Your task to perform on an android device: refresh tabs in the chrome app Image 0: 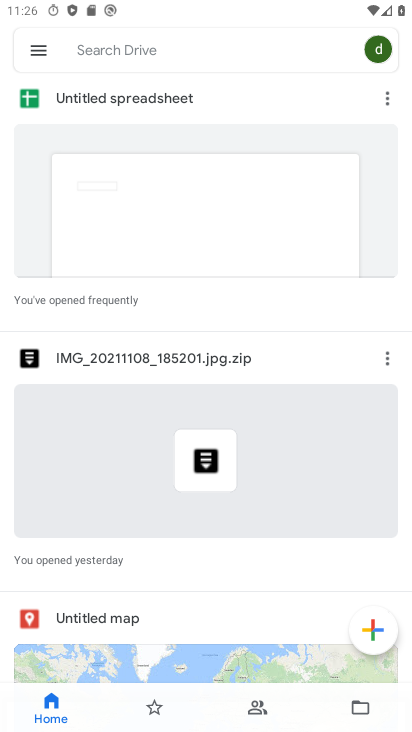
Step 0: press home button
Your task to perform on an android device: refresh tabs in the chrome app Image 1: 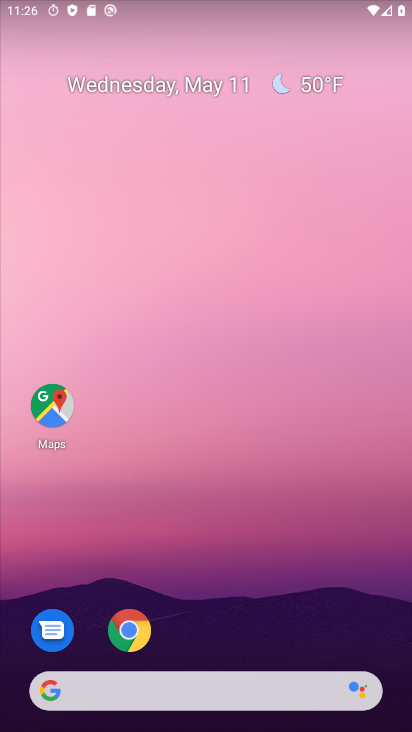
Step 1: click (126, 628)
Your task to perform on an android device: refresh tabs in the chrome app Image 2: 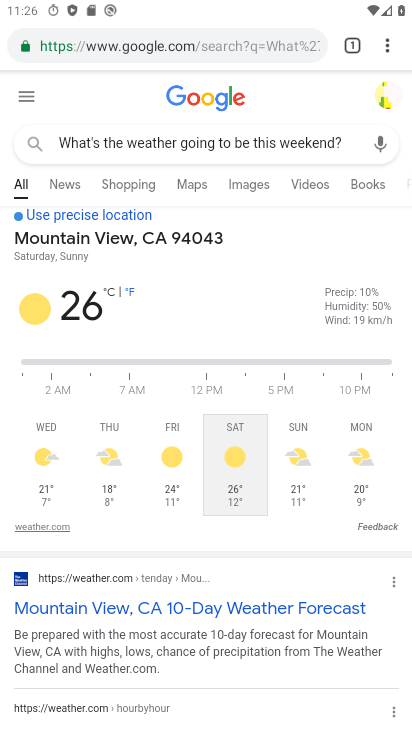
Step 2: click (382, 46)
Your task to perform on an android device: refresh tabs in the chrome app Image 3: 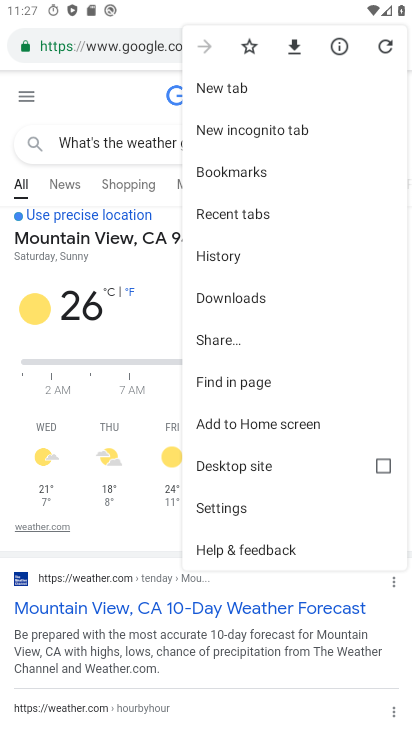
Step 3: click (390, 51)
Your task to perform on an android device: refresh tabs in the chrome app Image 4: 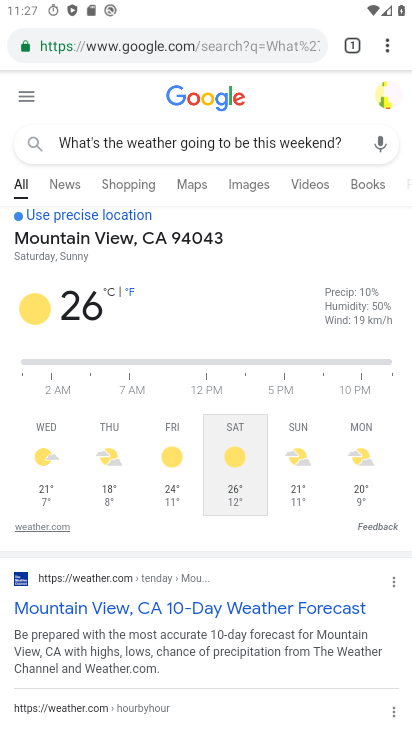
Step 4: task complete